Your task to perform on an android device: change timer sound Image 0: 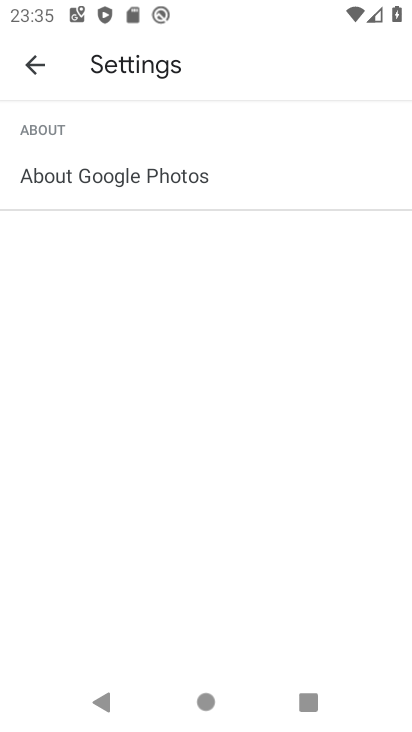
Step 0: press home button
Your task to perform on an android device: change timer sound Image 1: 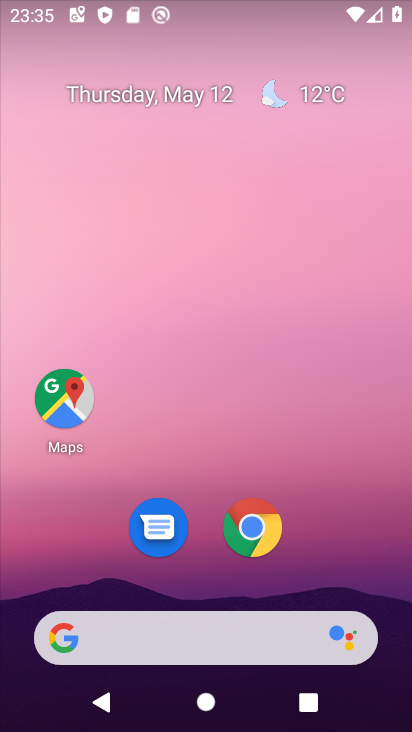
Step 1: drag from (43, 652) to (348, 200)
Your task to perform on an android device: change timer sound Image 2: 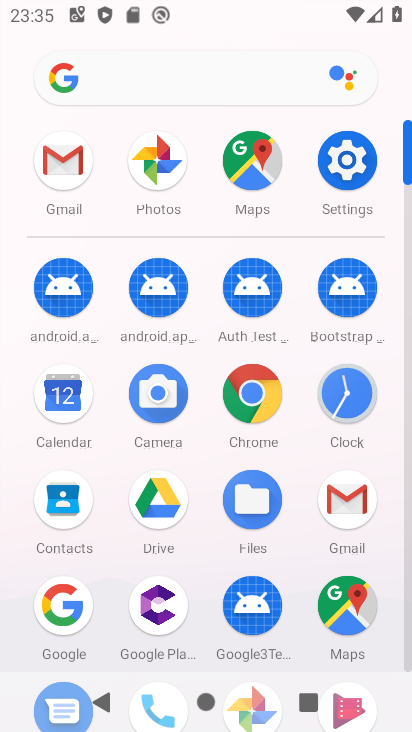
Step 2: click (331, 393)
Your task to perform on an android device: change timer sound Image 3: 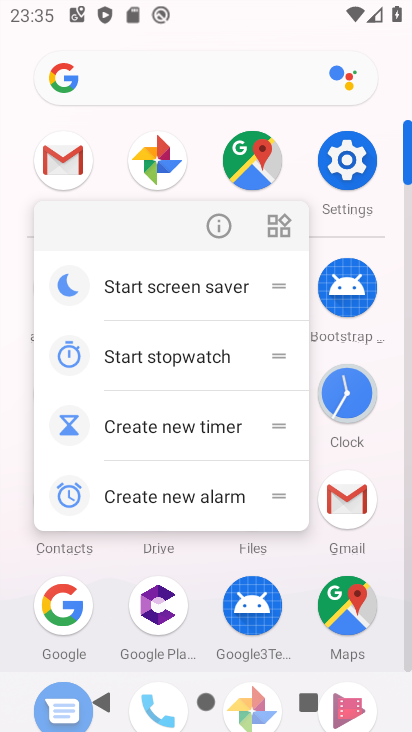
Step 3: click (343, 399)
Your task to perform on an android device: change timer sound Image 4: 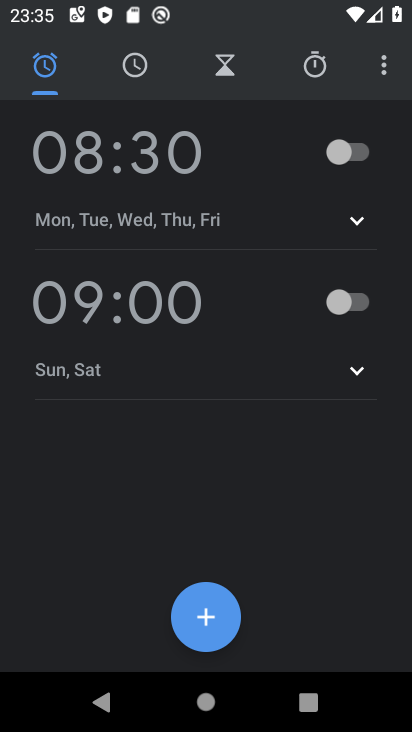
Step 4: click (381, 69)
Your task to perform on an android device: change timer sound Image 5: 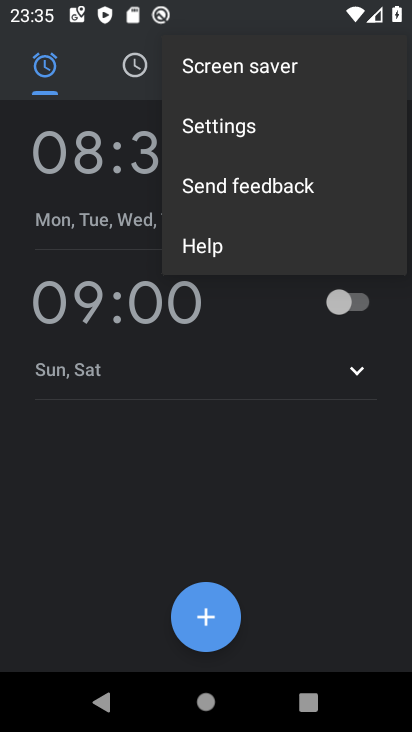
Step 5: click (279, 128)
Your task to perform on an android device: change timer sound Image 6: 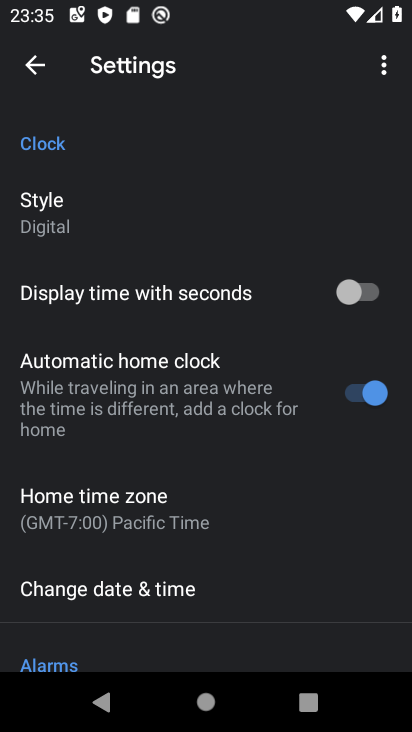
Step 6: drag from (127, 539) to (281, 297)
Your task to perform on an android device: change timer sound Image 7: 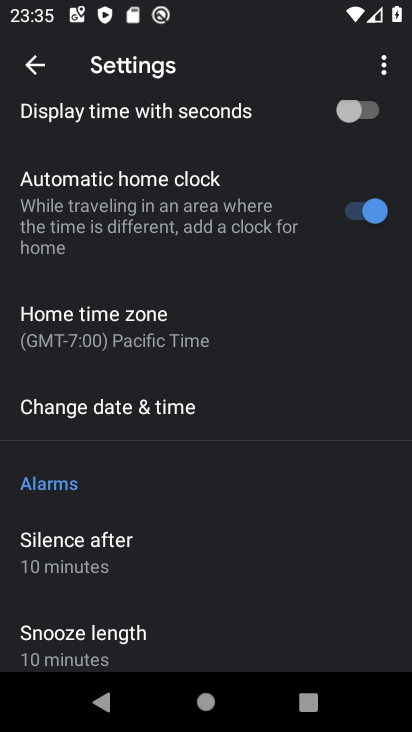
Step 7: drag from (52, 606) to (270, 282)
Your task to perform on an android device: change timer sound Image 8: 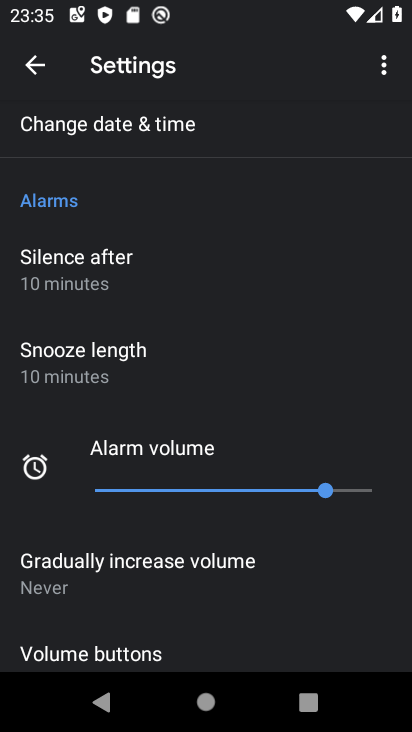
Step 8: drag from (210, 240) to (258, 726)
Your task to perform on an android device: change timer sound Image 9: 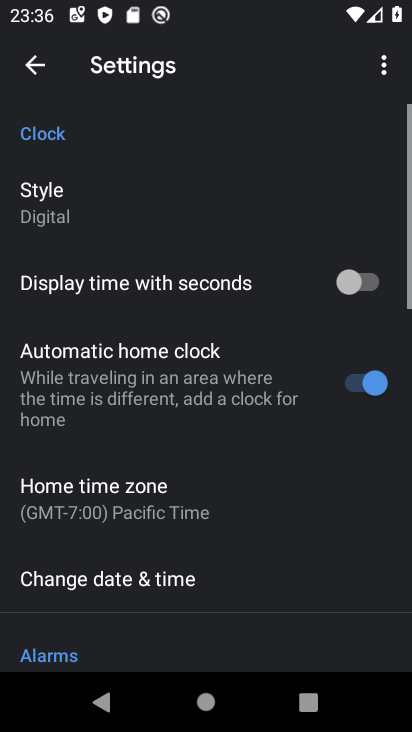
Step 9: drag from (102, 635) to (267, 257)
Your task to perform on an android device: change timer sound Image 10: 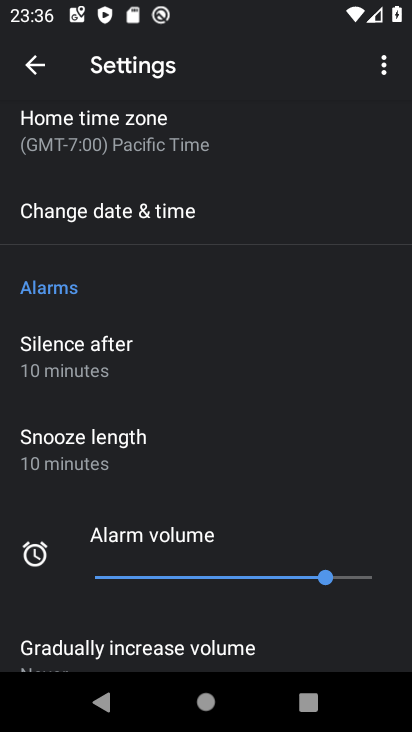
Step 10: drag from (4, 648) to (264, 247)
Your task to perform on an android device: change timer sound Image 11: 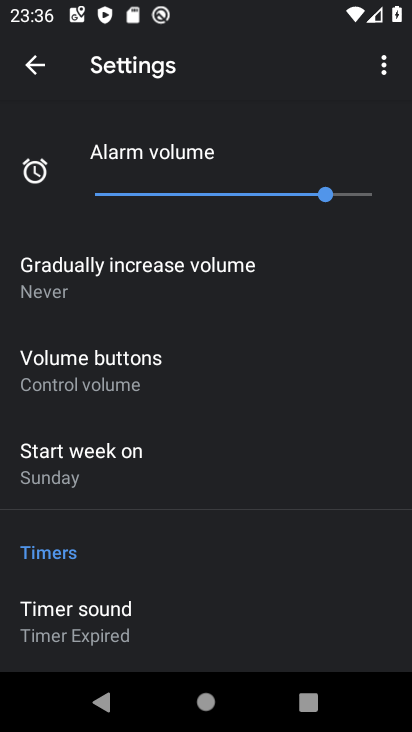
Step 11: click (142, 626)
Your task to perform on an android device: change timer sound Image 12: 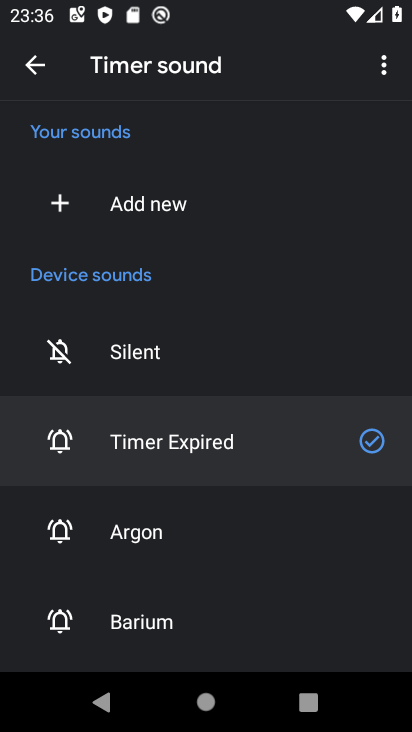
Step 12: click (144, 532)
Your task to perform on an android device: change timer sound Image 13: 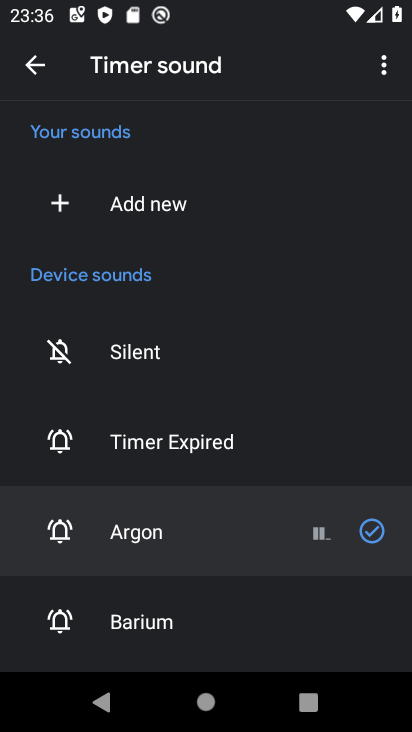
Step 13: task complete